Your task to perform on an android device: change keyboard looks Image 0: 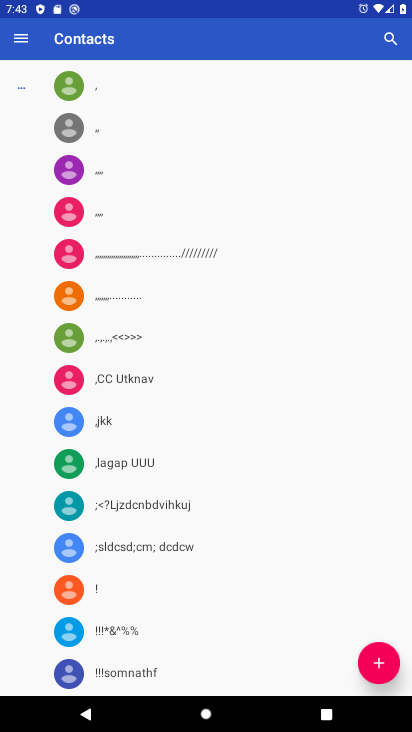
Step 0: press home button
Your task to perform on an android device: change keyboard looks Image 1: 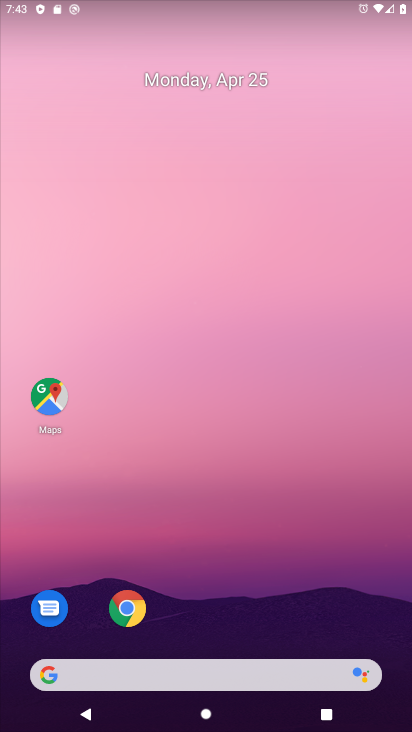
Step 1: drag from (287, 583) to (272, 5)
Your task to perform on an android device: change keyboard looks Image 2: 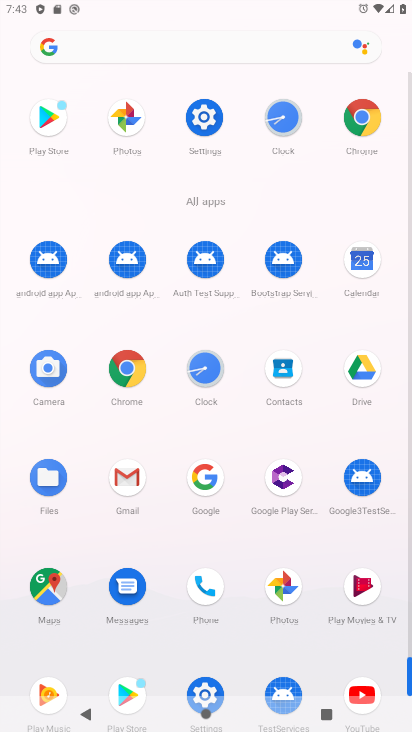
Step 2: click (203, 128)
Your task to perform on an android device: change keyboard looks Image 3: 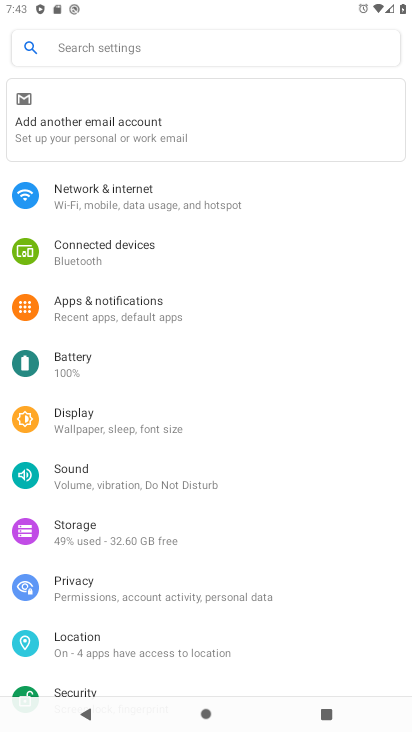
Step 3: drag from (289, 617) to (294, 167)
Your task to perform on an android device: change keyboard looks Image 4: 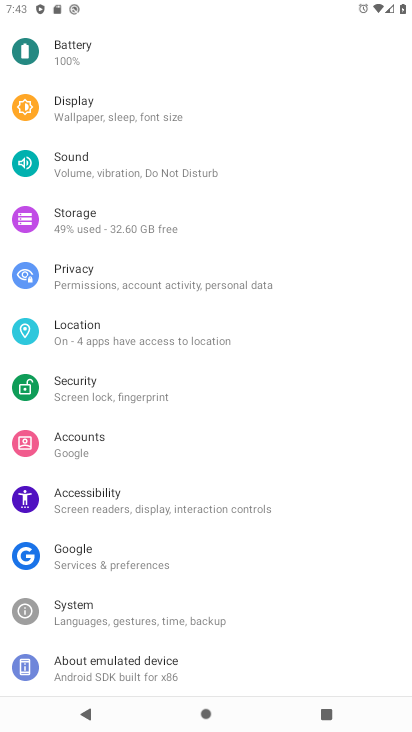
Step 4: click (179, 615)
Your task to perform on an android device: change keyboard looks Image 5: 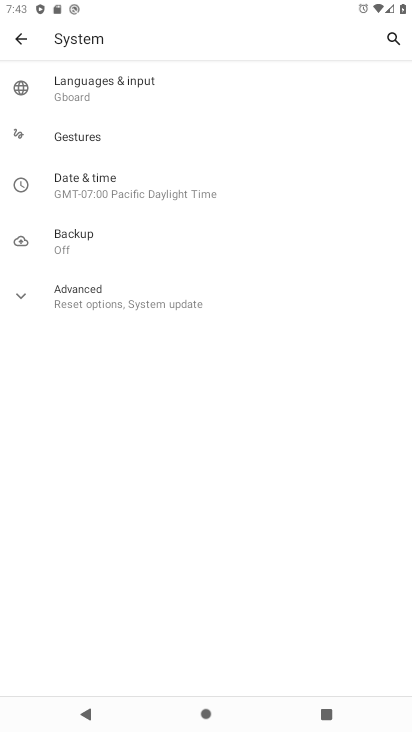
Step 5: click (132, 90)
Your task to perform on an android device: change keyboard looks Image 6: 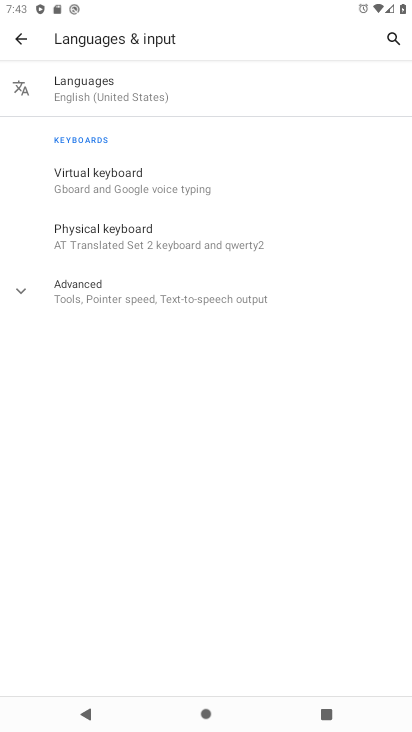
Step 6: click (126, 177)
Your task to perform on an android device: change keyboard looks Image 7: 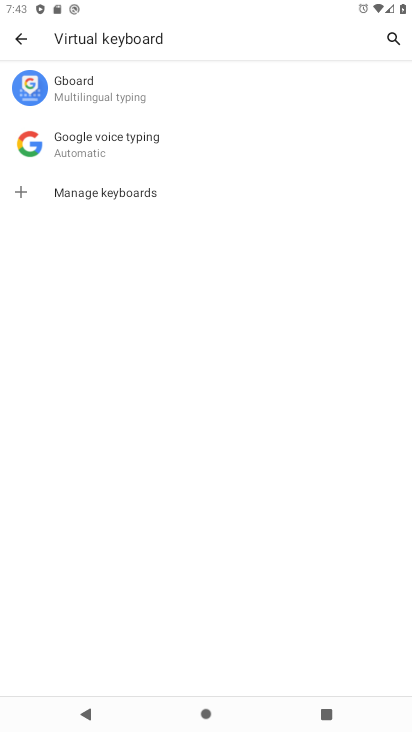
Step 7: click (133, 93)
Your task to perform on an android device: change keyboard looks Image 8: 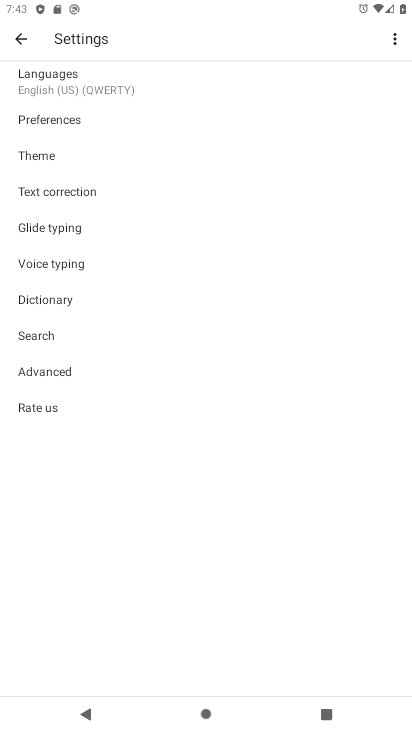
Step 8: click (49, 159)
Your task to perform on an android device: change keyboard looks Image 9: 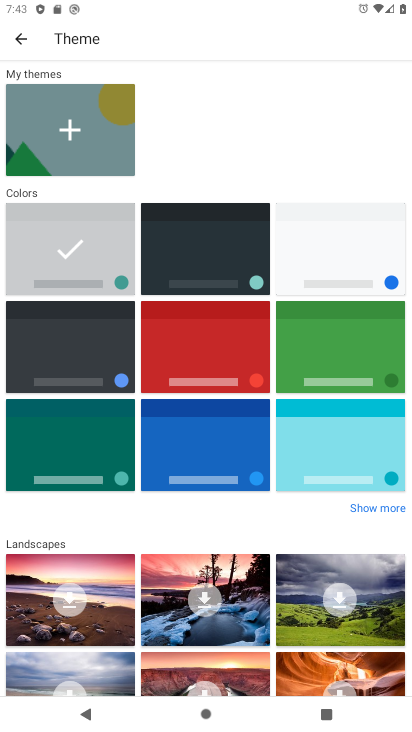
Step 9: click (233, 248)
Your task to perform on an android device: change keyboard looks Image 10: 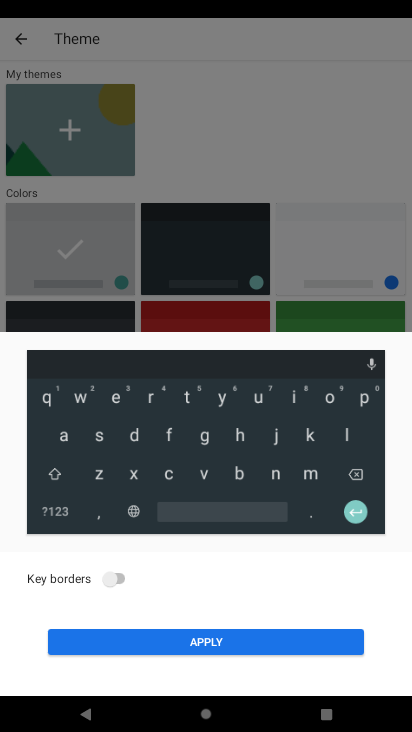
Step 10: click (123, 581)
Your task to perform on an android device: change keyboard looks Image 11: 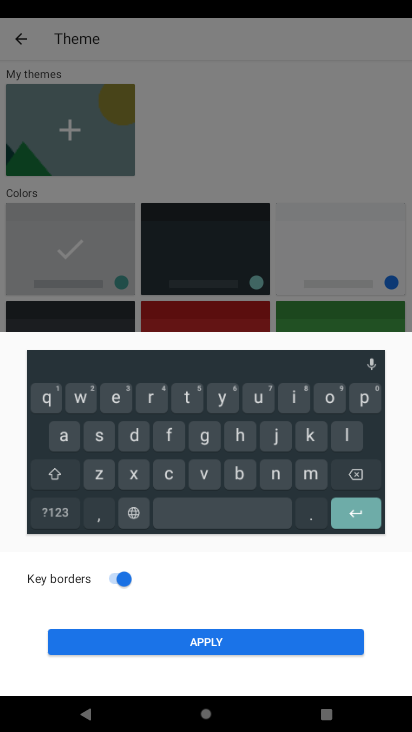
Step 11: click (213, 642)
Your task to perform on an android device: change keyboard looks Image 12: 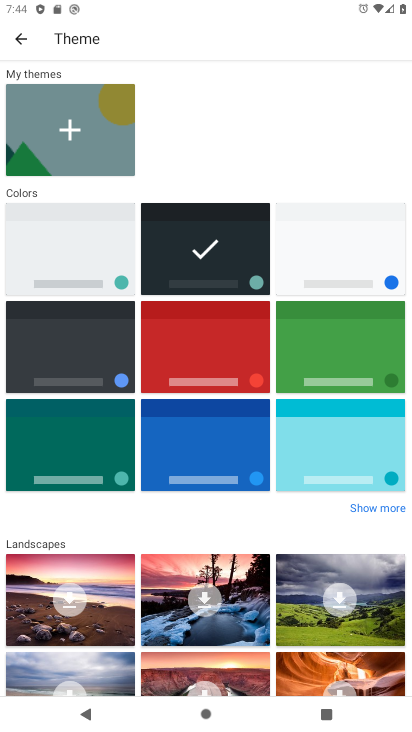
Step 12: task complete